Your task to perform on an android device: open sync settings in chrome Image 0: 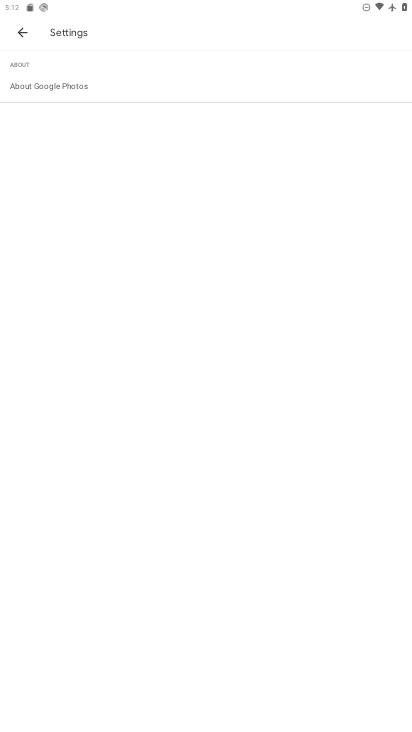
Step 0: click (398, 630)
Your task to perform on an android device: open sync settings in chrome Image 1: 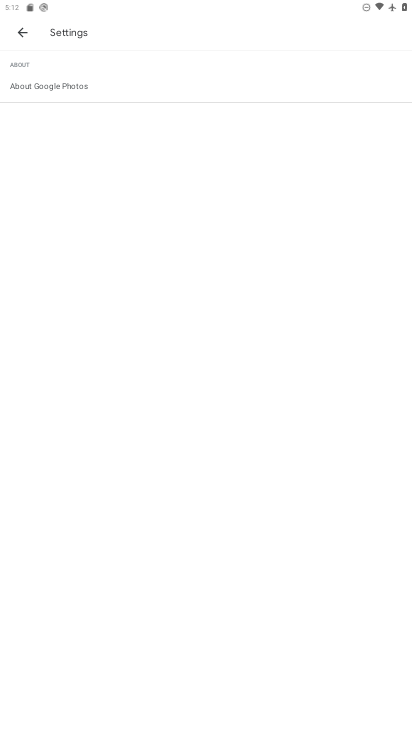
Step 1: press home button
Your task to perform on an android device: open sync settings in chrome Image 2: 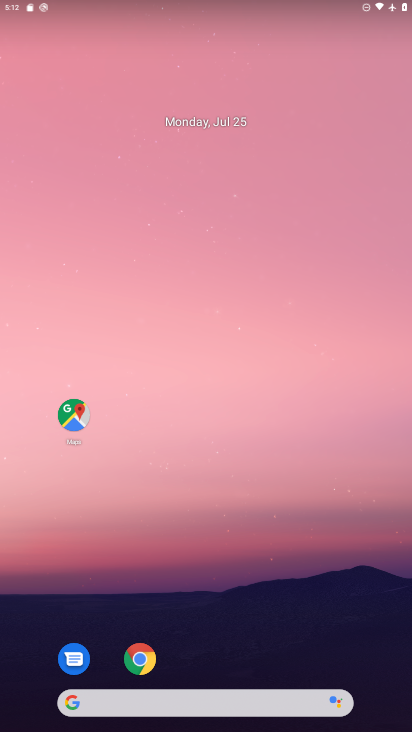
Step 2: drag from (376, 635) to (245, 56)
Your task to perform on an android device: open sync settings in chrome Image 3: 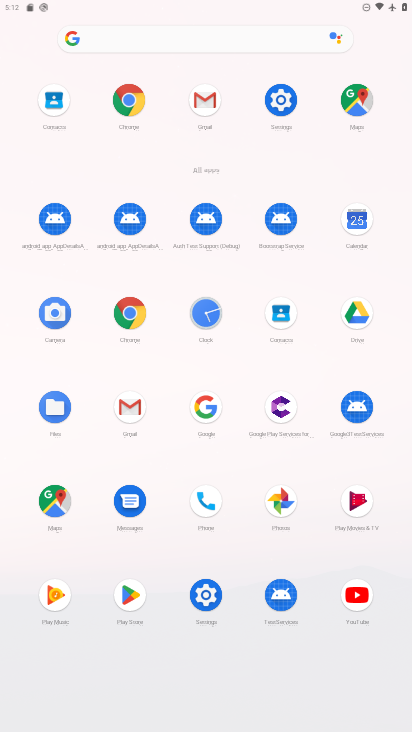
Step 3: click (131, 114)
Your task to perform on an android device: open sync settings in chrome Image 4: 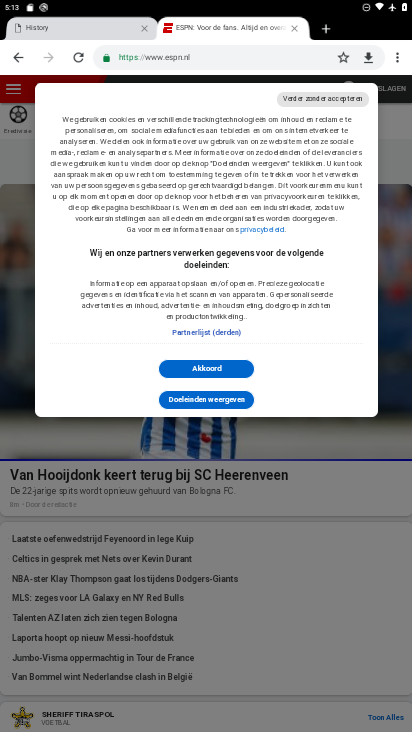
Step 4: click (402, 59)
Your task to perform on an android device: open sync settings in chrome Image 5: 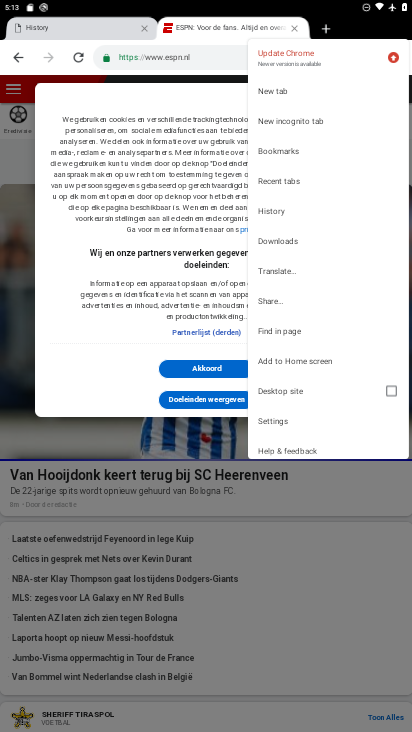
Step 5: click (280, 420)
Your task to perform on an android device: open sync settings in chrome Image 6: 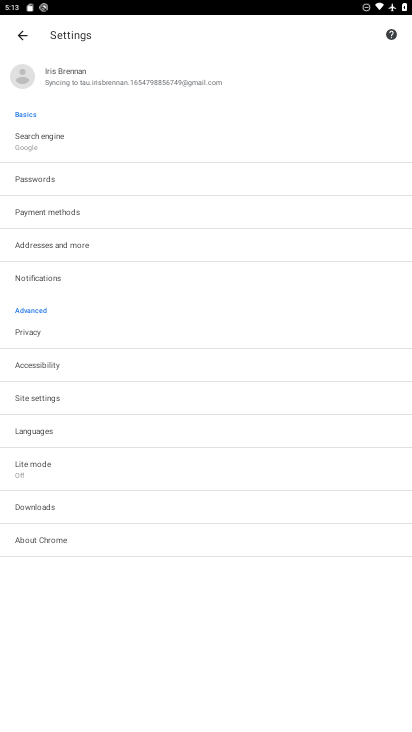
Step 6: click (139, 81)
Your task to perform on an android device: open sync settings in chrome Image 7: 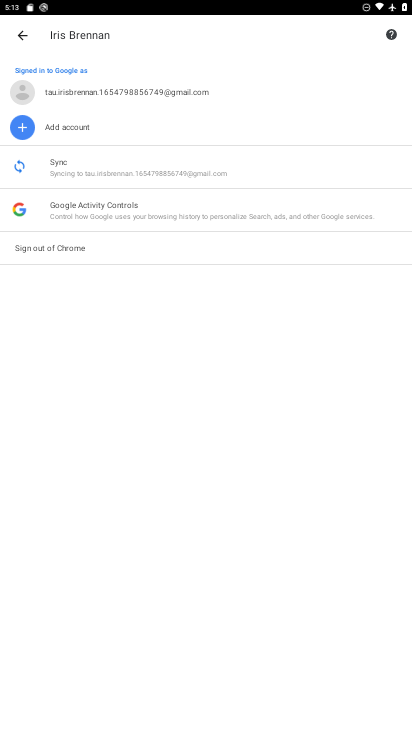
Step 7: click (141, 160)
Your task to perform on an android device: open sync settings in chrome Image 8: 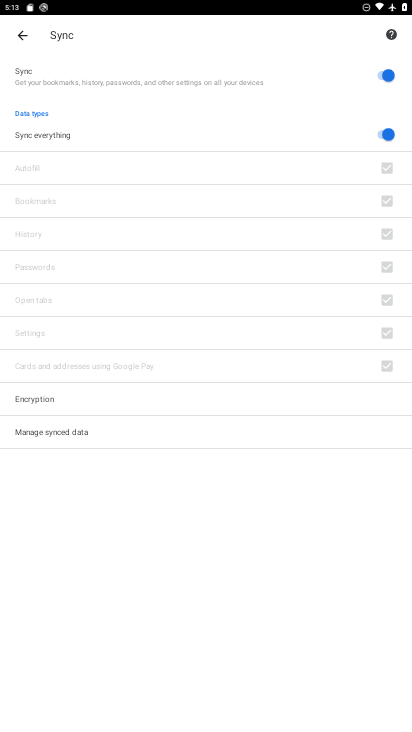
Step 8: task complete